Your task to perform on an android device: check data usage Image 0: 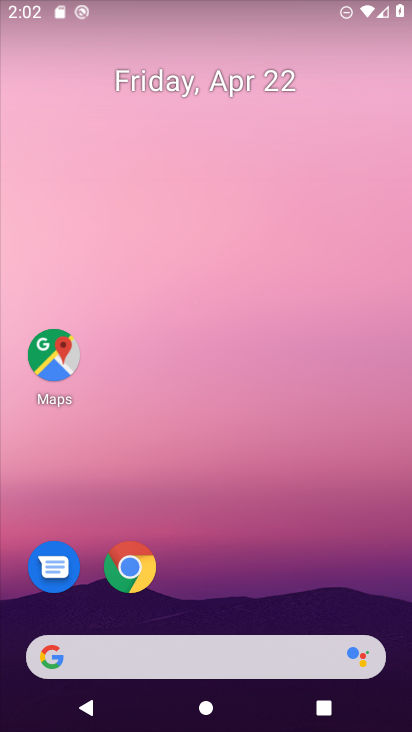
Step 0: drag from (212, 615) to (293, 143)
Your task to perform on an android device: check data usage Image 1: 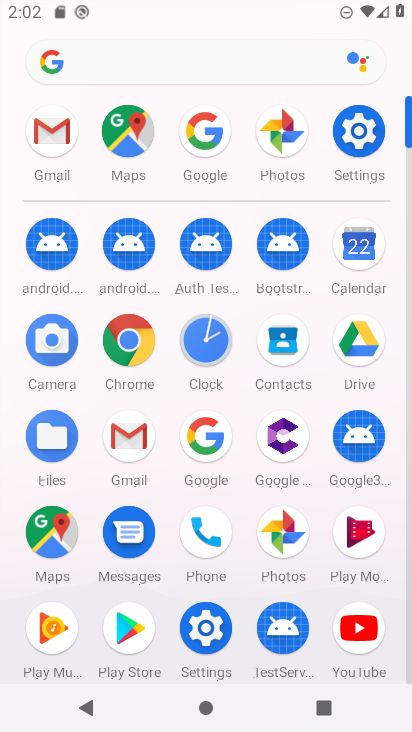
Step 1: click (218, 633)
Your task to perform on an android device: check data usage Image 2: 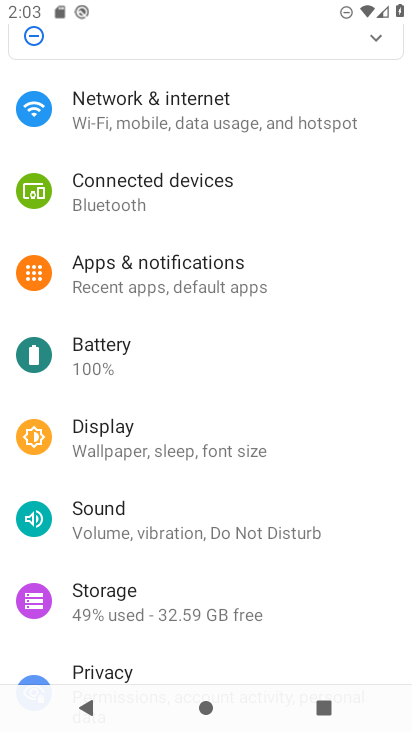
Step 2: click (147, 115)
Your task to perform on an android device: check data usage Image 3: 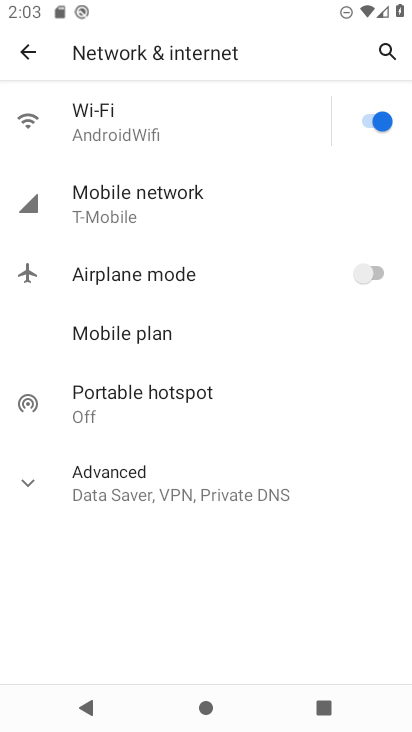
Step 3: click (186, 186)
Your task to perform on an android device: check data usage Image 4: 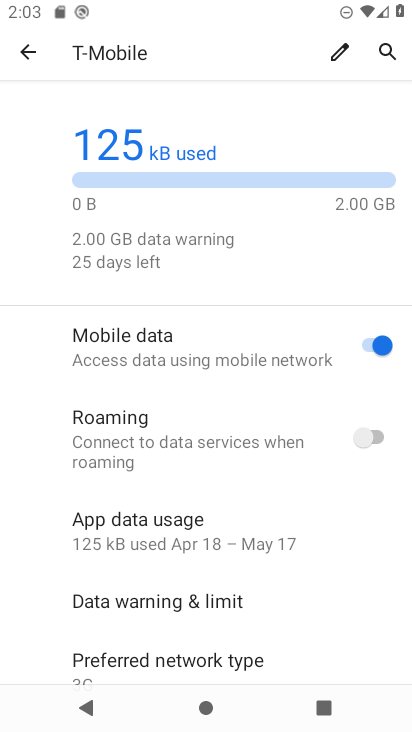
Step 4: click (129, 528)
Your task to perform on an android device: check data usage Image 5: 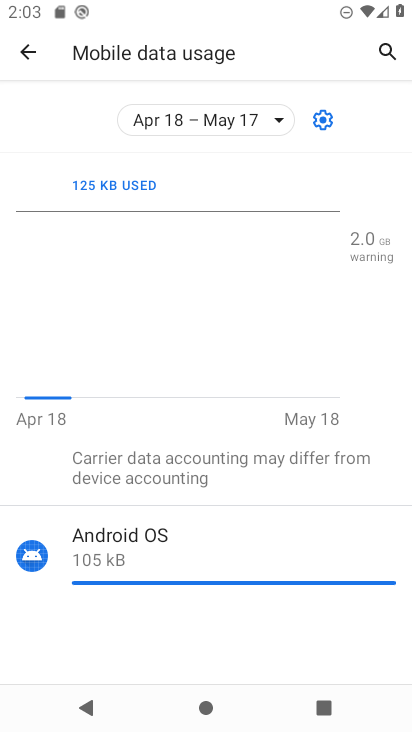
Step 5: task complete